Your task to perform on an android device: stop showing notifications on the lock screen Image 0: 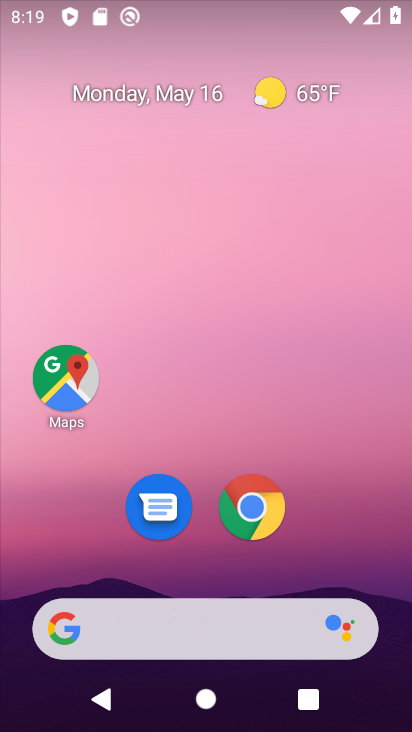
Step 0: drag from (191, 587) to (162, 37)
Your task to perform on an android device: stop showing notifications on the lock screen Image 1: 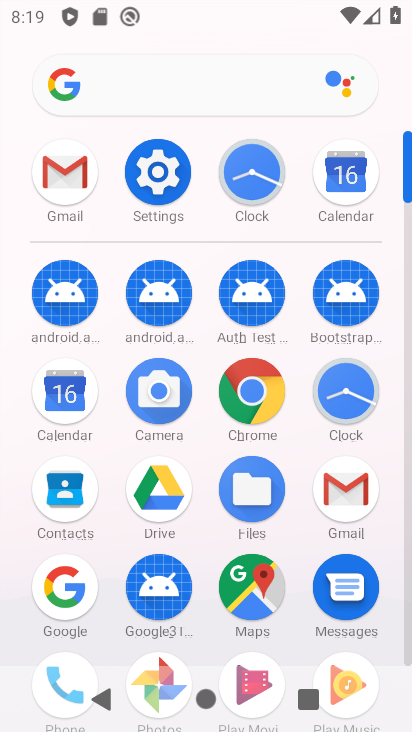
Step 1: click (163, 168)
Your task to perform on an android device: stop showing notifications on the lock screen Image 2: 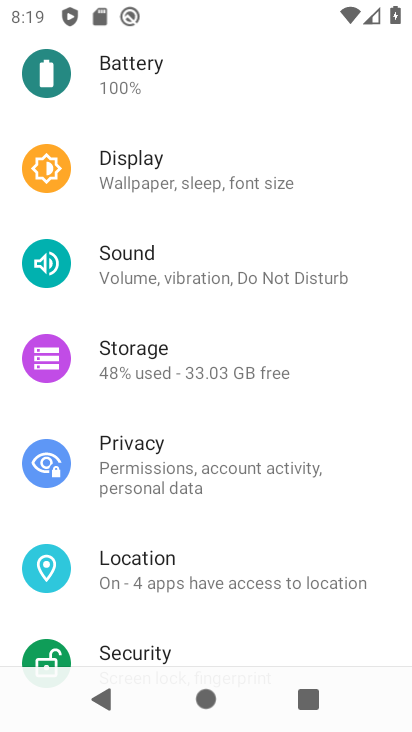
Step 2: drag from (196, 216) to (217, 568)
Your task to perform on an android device: stop showing notifications on the lock screen Image 3: 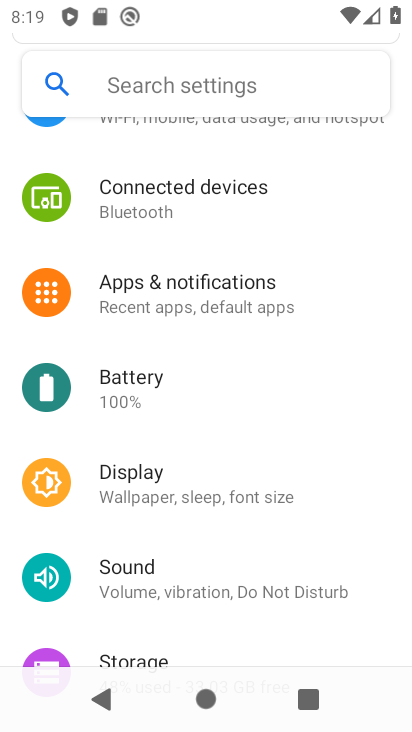
Step 3: click (177, 298)
Your task to perform on an android device: stop showing notifications on the lock screen Image 4: 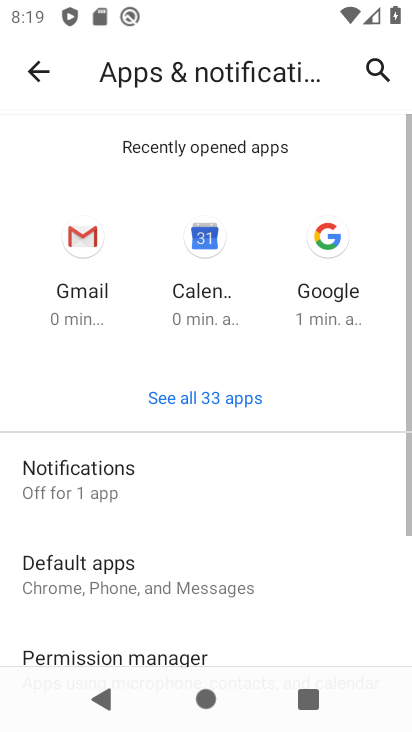
Step 4: click (132, 470)
Your task to perform on an android device: stop showing notifications on the lock screen Image 5: 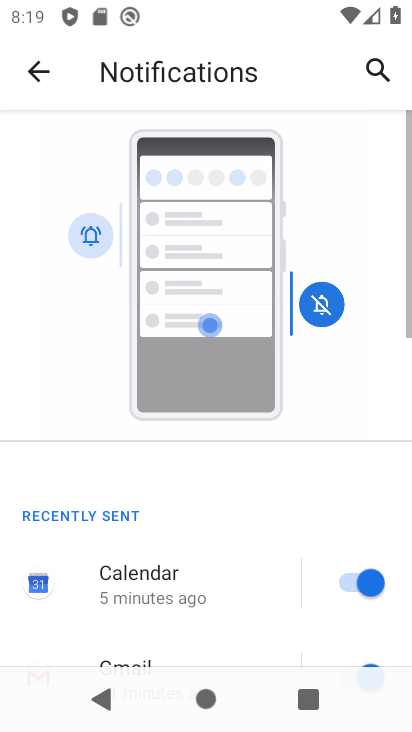
Step 5: drag from (202, 549) to (196, 8)
Your task to perform on an android device: stop showing notifications on the lock screen Image 6: 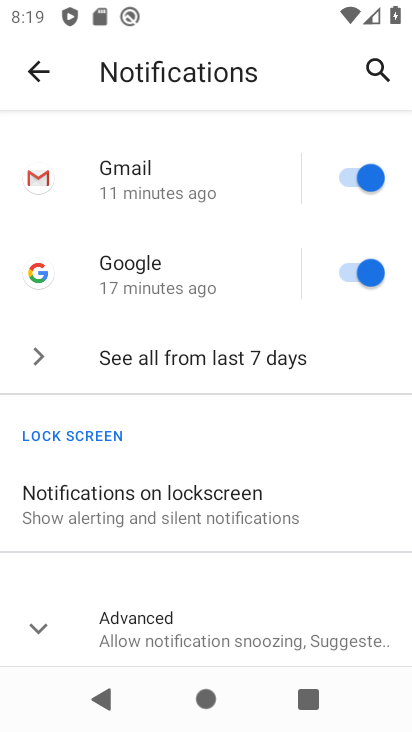
Step 6: click (190, 521)
Your task to perform on an android device: stop showing notifications on the lock screen Image 7: 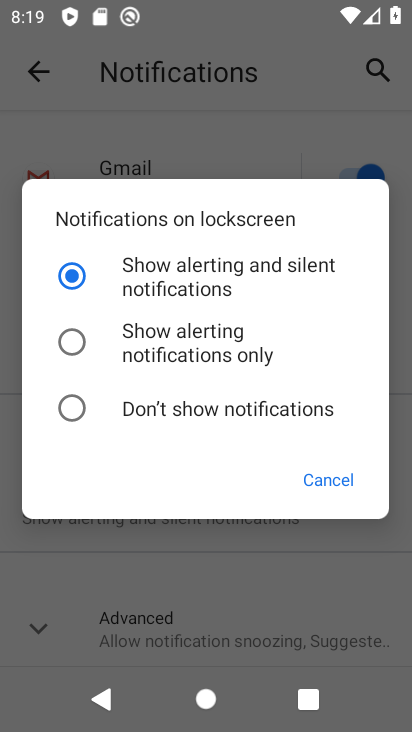
Step 7: click (175, 406)
Your task to perform on an android device: stop showing notifications on the lock screen Image 8: 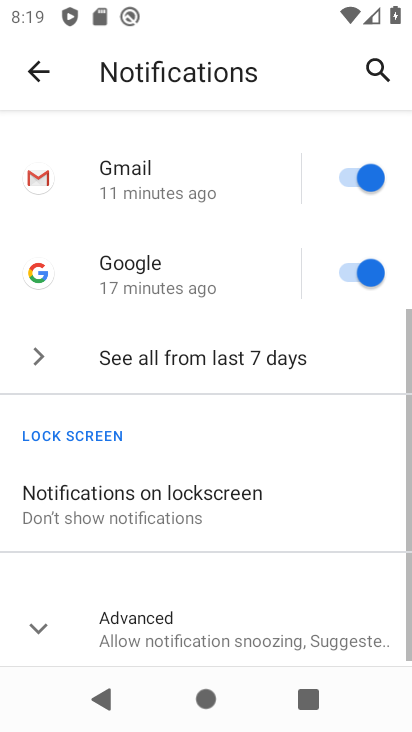
Step 8: task complete